Your task to perform on an android device: Open the Play Movies app and select the watchlist tab. Image 0: 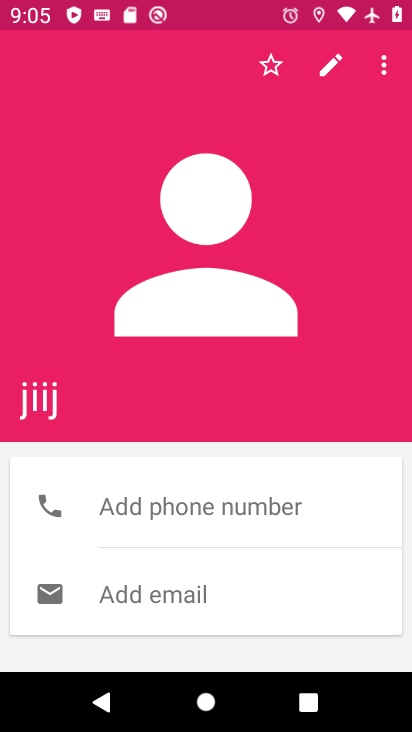
Step 0: press home button
Your task to perform on an android device: Open the Play Movies app and select the watchlist tab. Image 1: 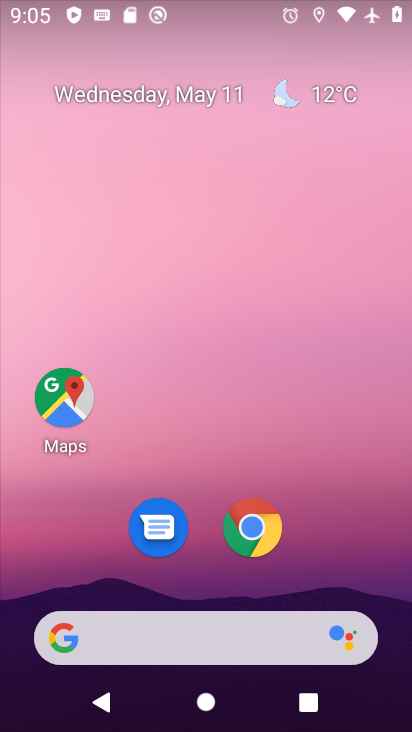
Step 1: drag from (342, 506) to (203, 179)
Your task to perform on an android device: Open the Play Movies app and select the watchlist tab. Image 2: 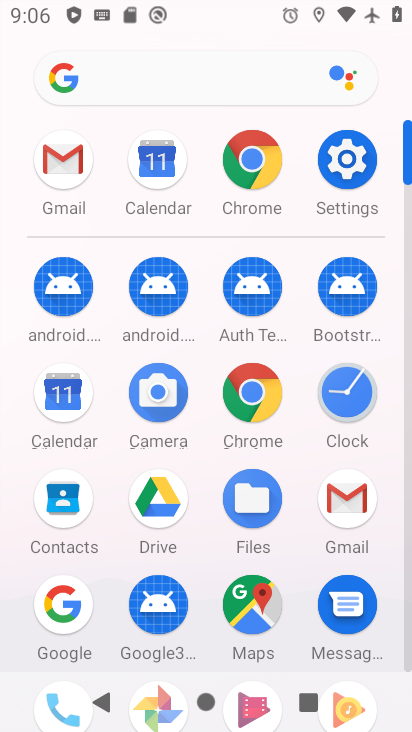
Step 2: drag from (311, 615) to (329, 402)
Your task to perform on an android device: Open the Play Movies app and select the watchlist tab. Image 3: 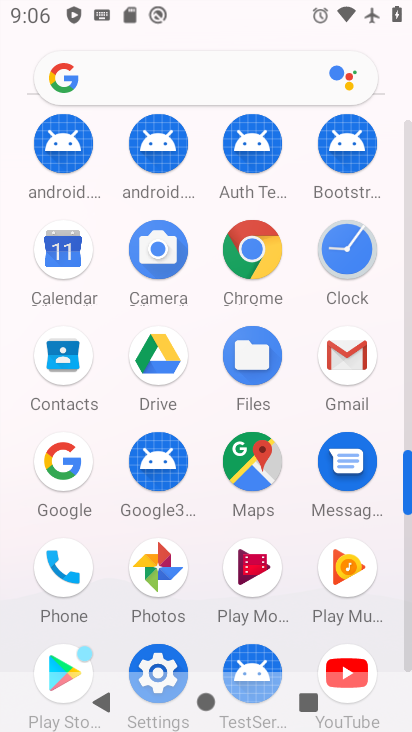
Step 3: click (260, 570)
Your task to perform on an android device: Open the Play Movies app and select the watchlist tab. Image 4: 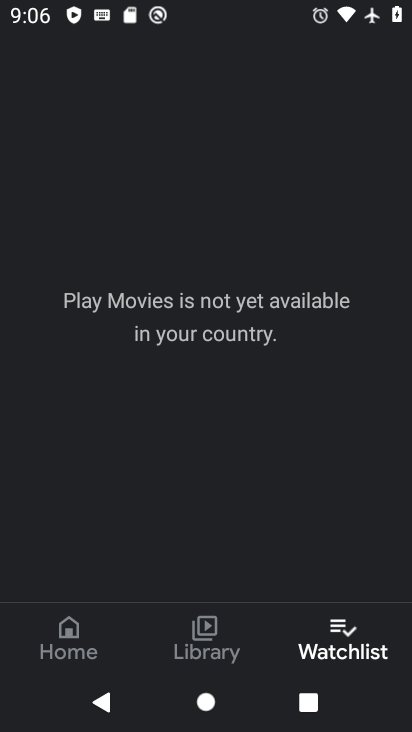
Step 4: task complete